Your task to perform on an android device: Go to Google Image 0: 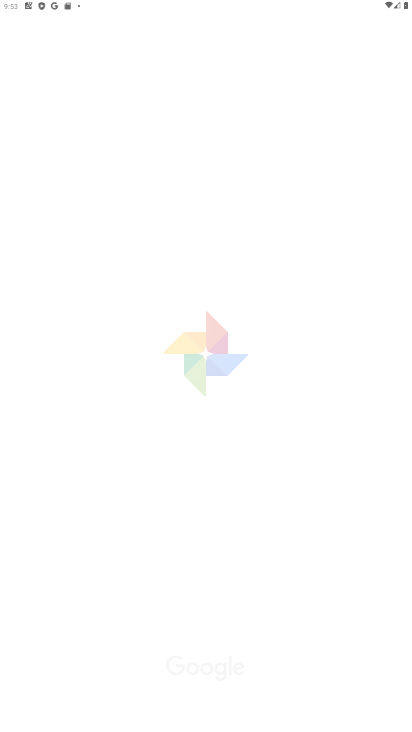
Step 0: drag from (14, 680) to (333, 94)
Your task to perform on an android device: Go to Google Image 1: 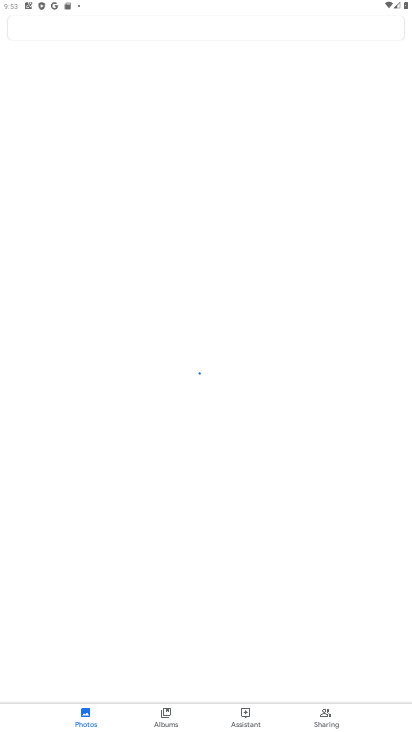
Step 1: press home button
Your task to perform on an android device: Go to Google Image 2: 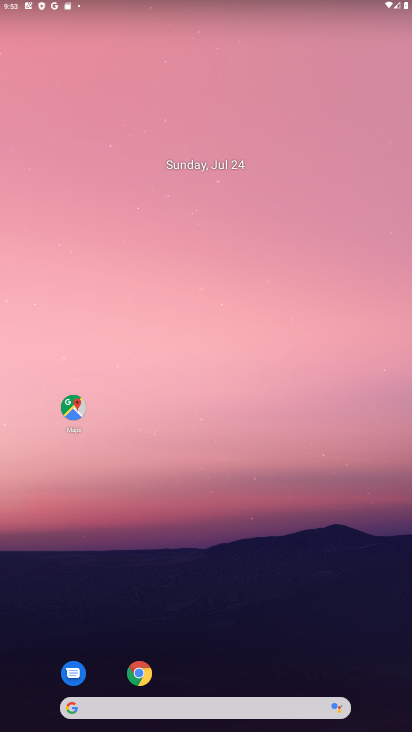
Step 2: click (151, 702)
Your task to perform on an android device: Go to Google Image 3: 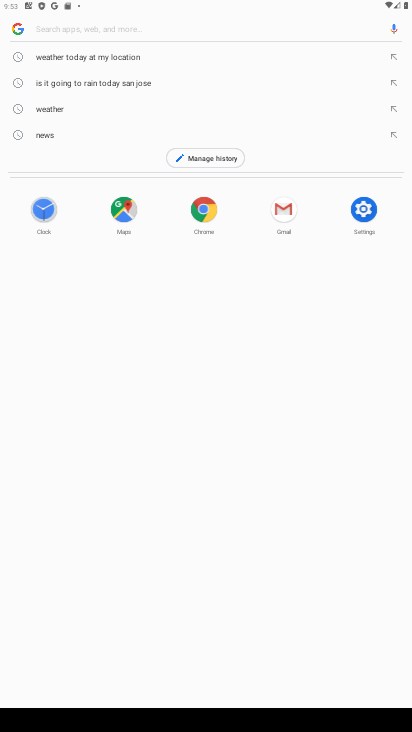
Step 3: task complete